Your task to perform on an android device: Search for seafood restaurants on Google Maps Image 0: 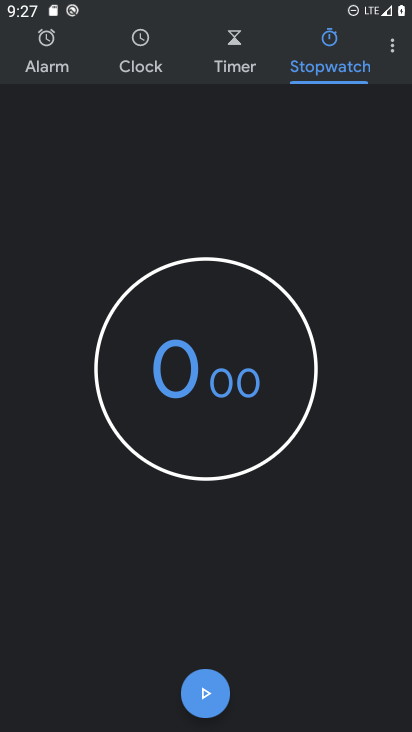
Step 0: press home button
Your task to perform on an android device: Search for seafood restaurants on Google Maps Image 1: 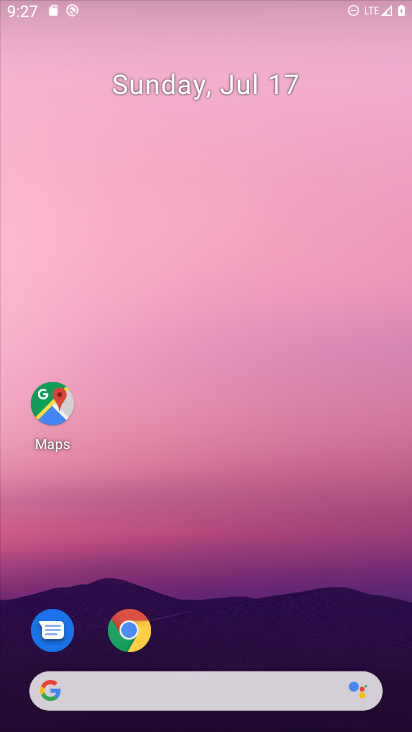
Step 1: drag from (200, 651) to (211, 271)
Your task to perform on an android device: Search for seafood restaurants on Google Maps Image 2: 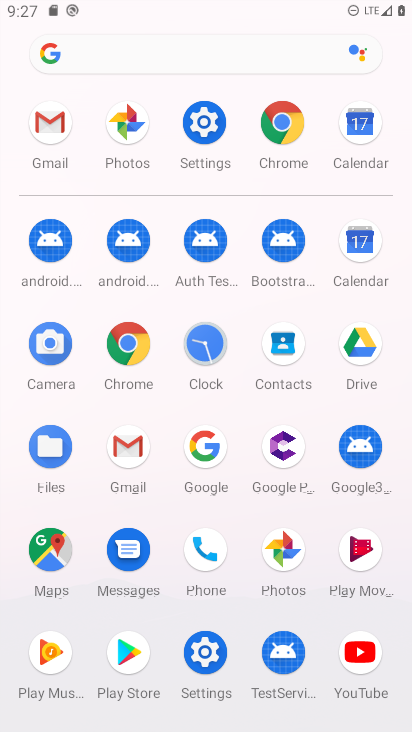
Step 2: click (35, 556)
Your task to perform on an android device: Search for seafood restaurants on Google Maps Image 3: 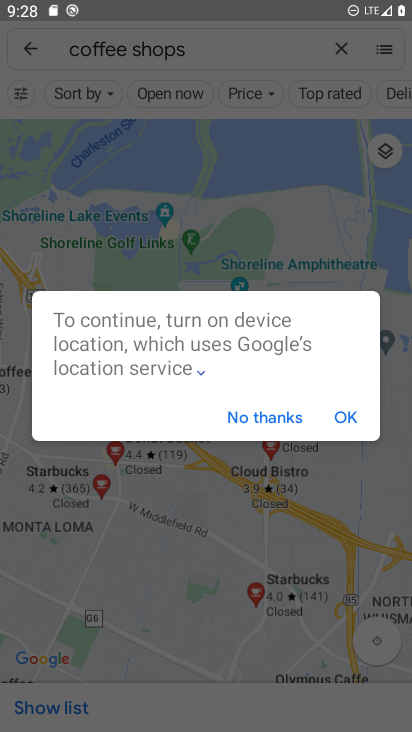
Step 3: click (331, 420)
Your task to perform on an android device: Search for seafood restaurants on Google Maps Image 4: 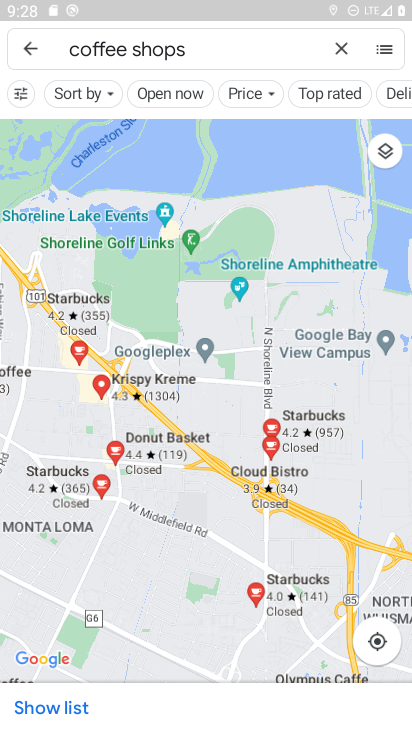
Step 4: click (339, 46)
Your task to perform on an android device: Search for seafood restaurants on Google Maps Image 5: 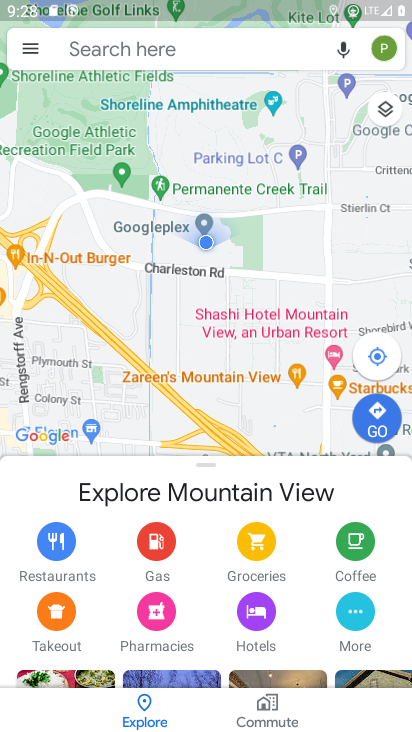
Step 5: click (163, 38)
Your task to perform on an android device: Search for seafood restaurants on Google Maps Image 6: 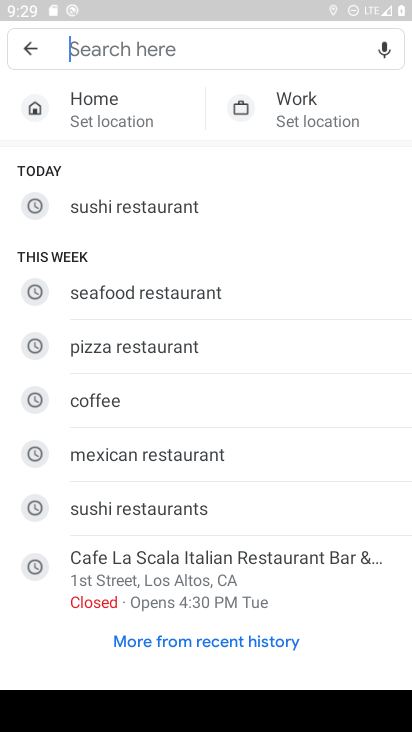
Step 6: type " seafood restaurants "
Your task to perform on an android device: Search for seafood restaurants on Google Maps Image 7: 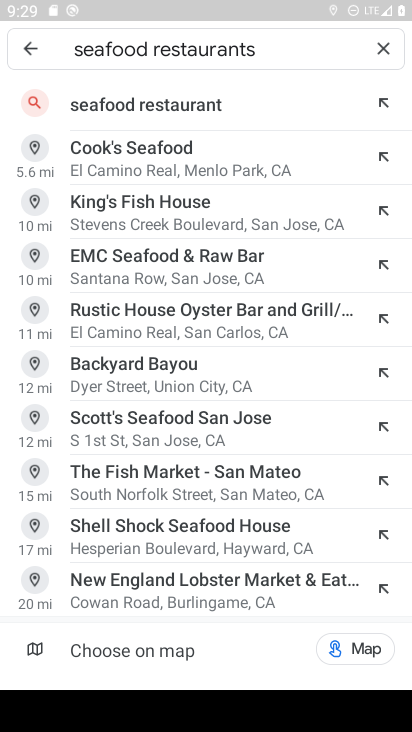
Step 7: click (140, 107)
Your task to perform on an android device: Search for seafood restaurants on Google Maps Image 8: 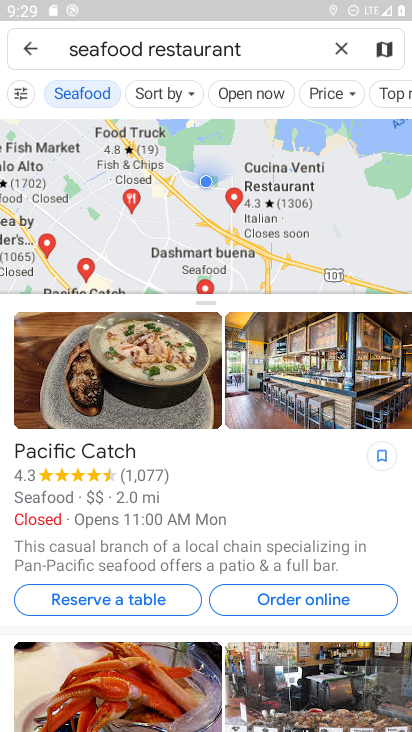
Step 8: task complete